Your task to perform on an android device: Open my contact list Image 0: 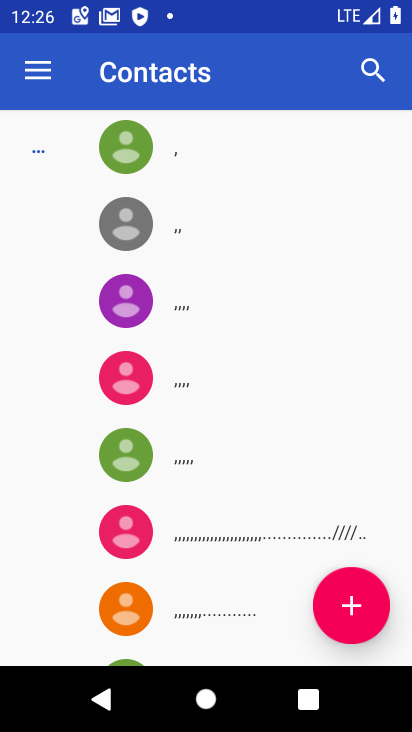
Step 0: drag from (225, 470) to (190, 194)
Your task to perform on an android device: Open my contact list Image 1: 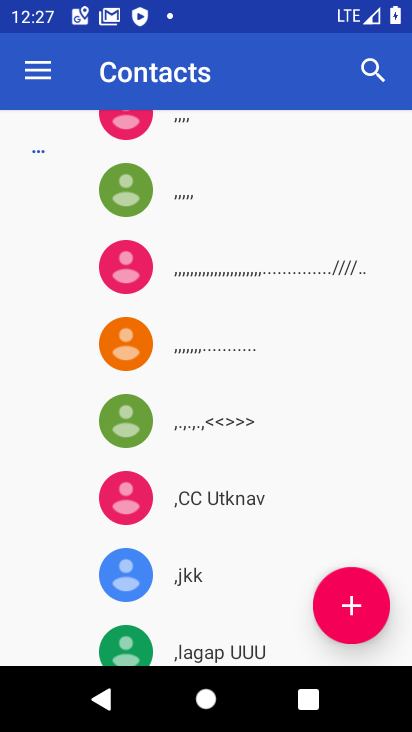
Step 1: task complete